Your task to perform on an android device: read, delete, or share a saved page in the chrome app Image 0: 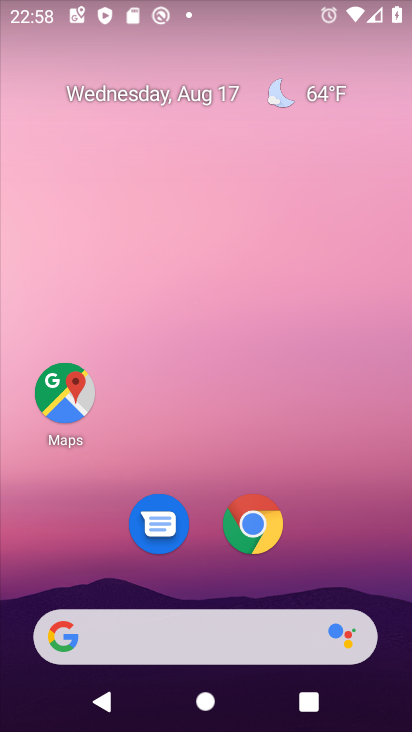
Step 0: click (257, 529)
Your task to perform on an android device: read, delete, or share a saved page in the chrome app Image 1: 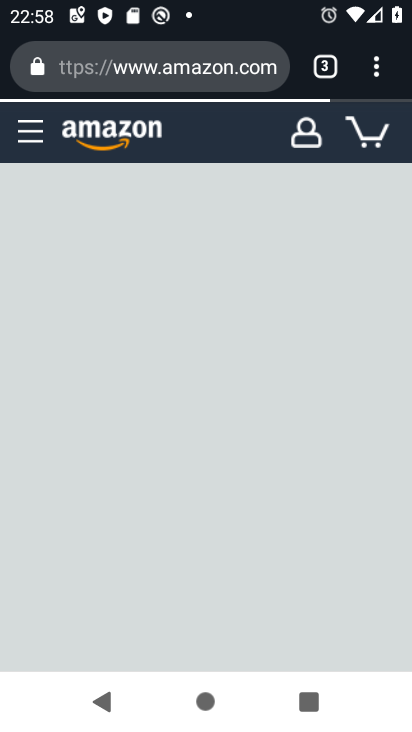
Step 1: click (375, 71)
Your task to perform on an android device: read, delete, or share a saved page in the chrome app Image 2: 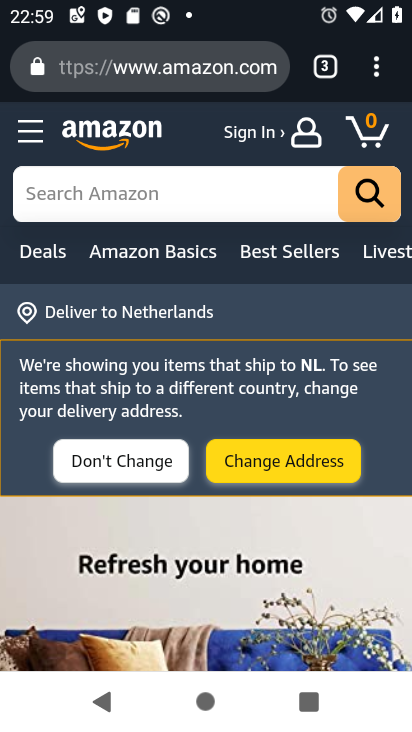
Step 2: click (376, 65)
Your task to perform on an android device: read, delete, or share a saved page in the chrome app Image 3: 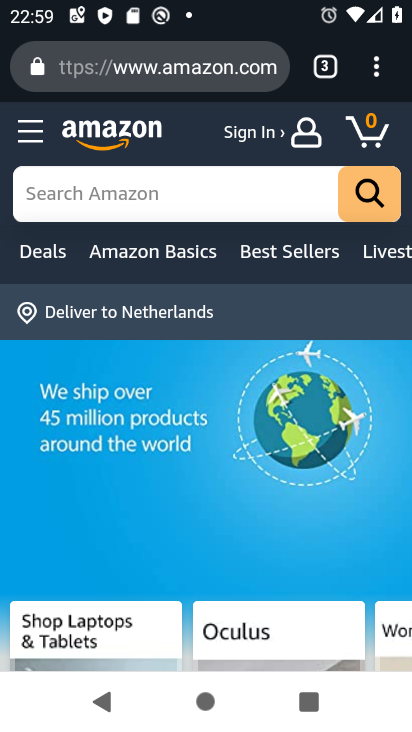
Step 3: press back button
Your task to perform on an android device: read, delete, or share a saved page in the chrome app Image 4: 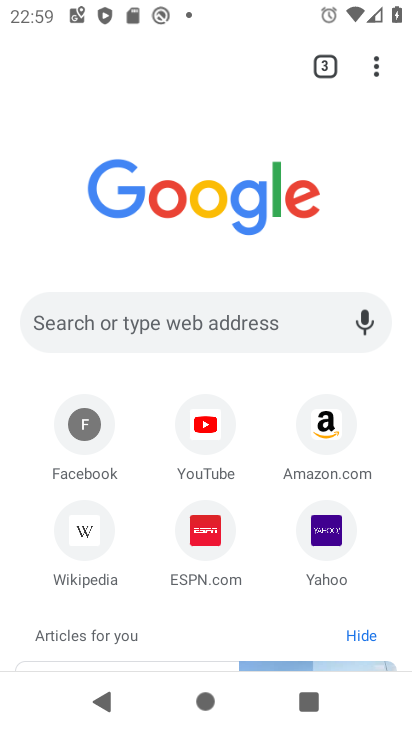
Step 4: click (374, 73)
Your task to perform on an android device: read, delete, or share a saved page in the chrome app Image 5: 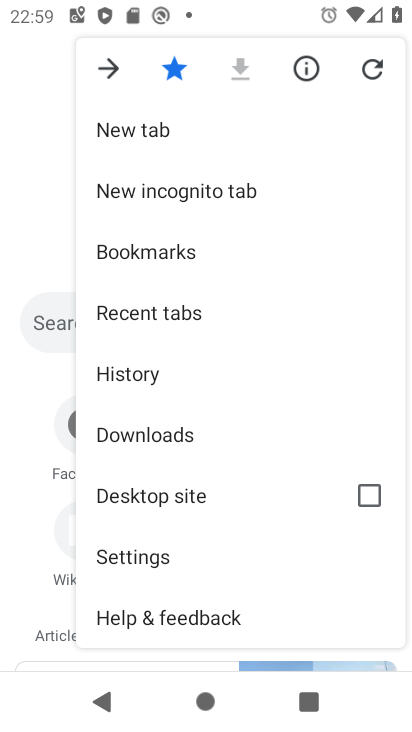
Step 5: click (151, 427)
Your task to perform on an android device: read, delete, or share a saved page in the chrome app Image 6: 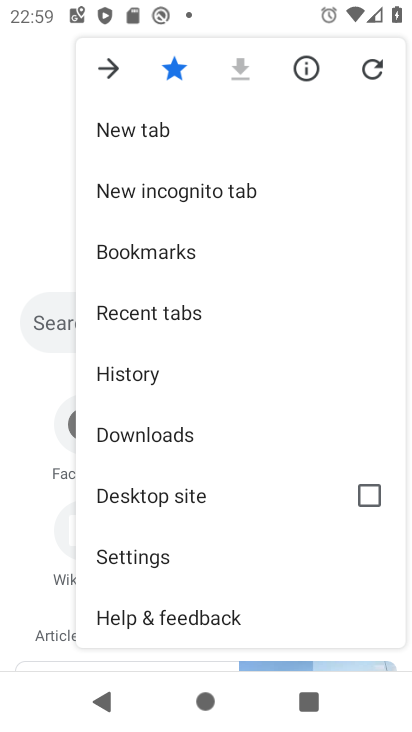
Step 6: click (151, 427)
Your task to perform on an android device: read, delete, or share a saved page in the chrome app Image 7: 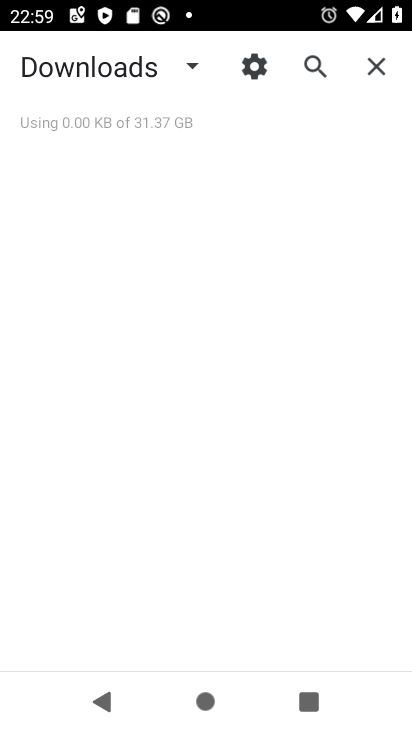
Step 7: task complete